Your task to perform on an android device: change notification settings in the gmail app Image 0: 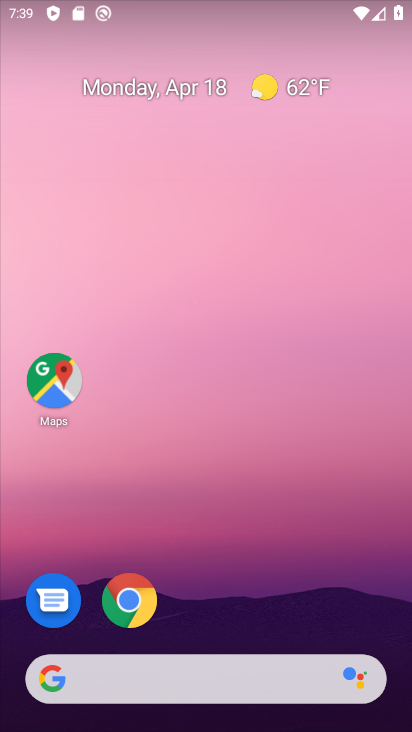
Step 0: drag from (196, 643) to (321, 26)
Your task to perform on an android device: change notification settings in the gmail app Image 1: 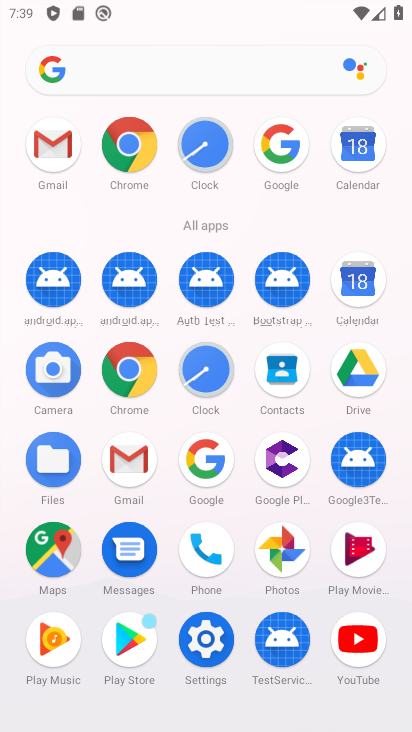
Step 1: click (117, 459)
Your task to perform on an android device: change notification settings in the gmail app Image 2: 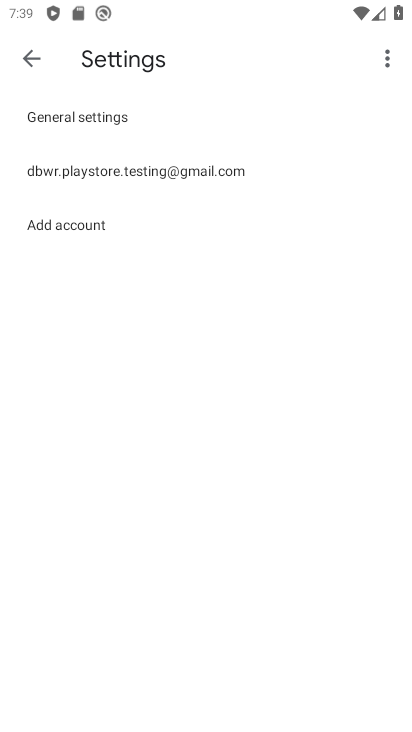
Step 2: click (57, 120)
Your task to perform on an android device: change notification settings in the gmail app Image 3: 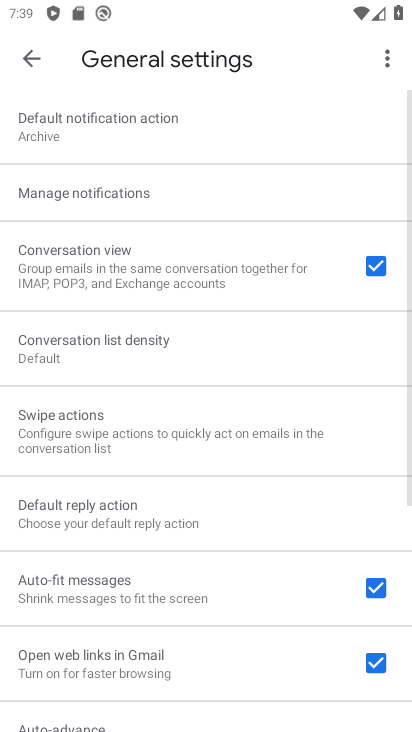
Step 3: click (82, 191)
Your task to perform on an android device: change notification settings in the gmail app Image 4: 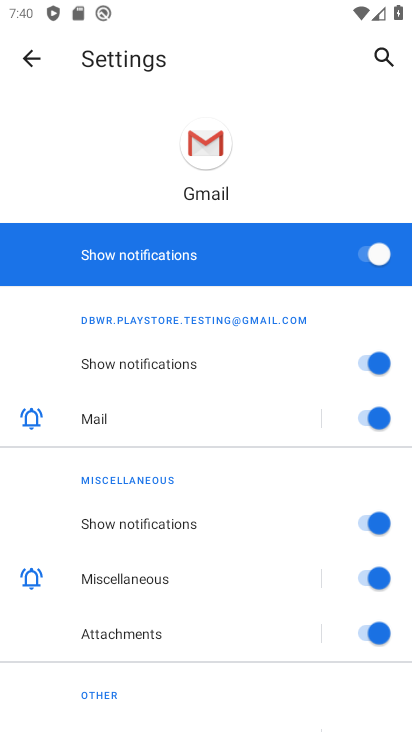
Step 4: click (362, 242)
Your task to perform on an android device: change notification settings in the gmail app Image 5: 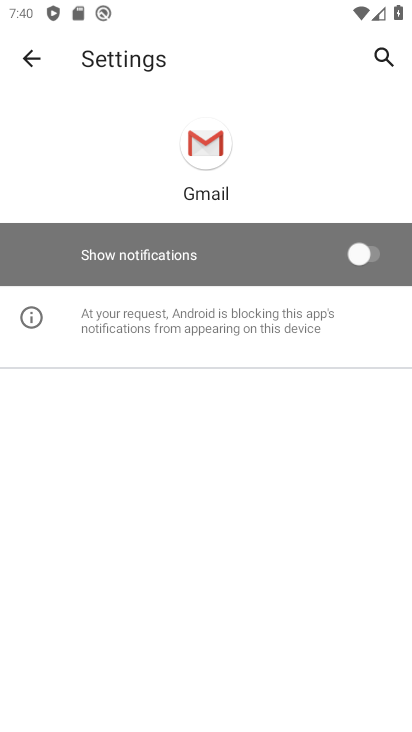
Step 5: task complete